Your task to perform on an android device: Open Google Maps and go to "Timeline" Image 0: 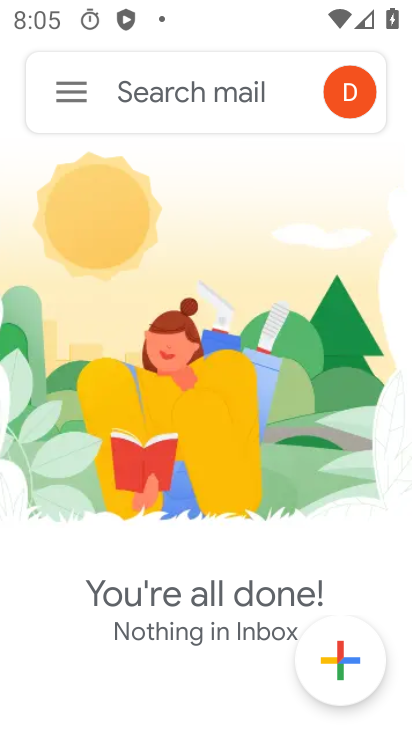
Step 0: press home button
Your task to perform on an android device: Open Google Maps and go to "Timeline" Image 1: 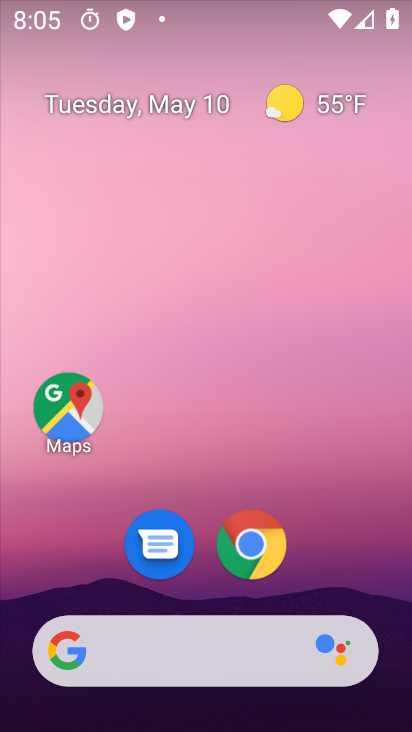
Step 1: click (50, 404)
Your task to perform on an android device: Open Google Maps and go to "Timeline" Image 2: 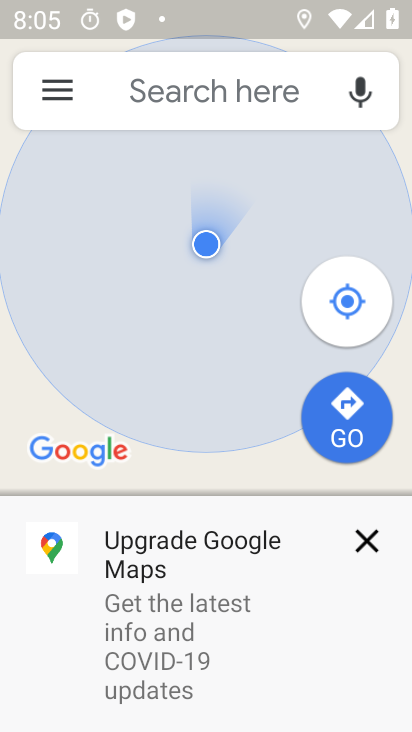
Step 2: click (54, 92)
Your task to perform on an android device: Open Google Maps and go to "Timeline" Image 3: 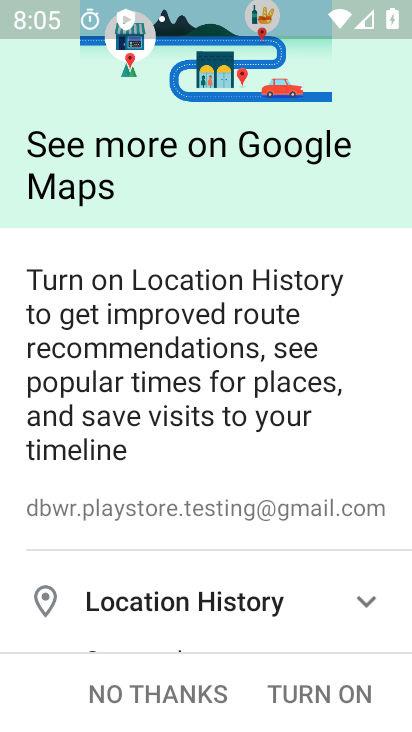
Step 3: click (332, 694)
Your task to perform on an android device: Open Google Maps and go to "Timeline" Image 4: 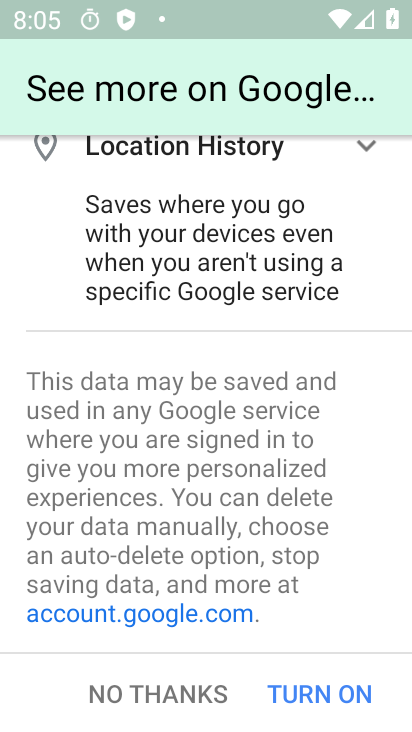
Step 4: click (310, 704)
Your task to perform on an android device: Open Google Maps and go to "Timeline" Image 5: 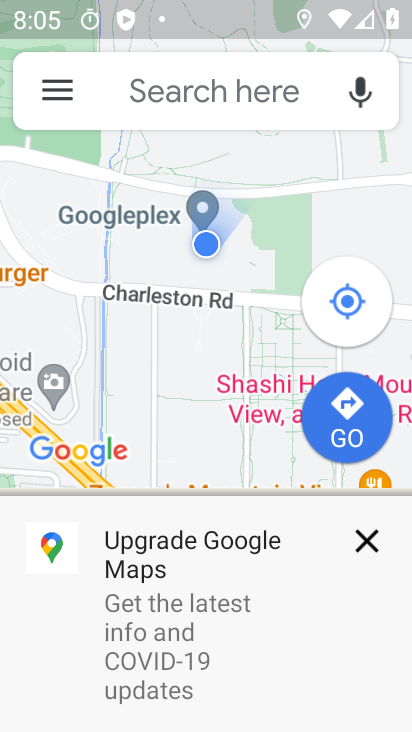
Step 5: click (41, 87)
Your task to perform on an android device: Open Google Maps and go to "Timeline" Image 6: 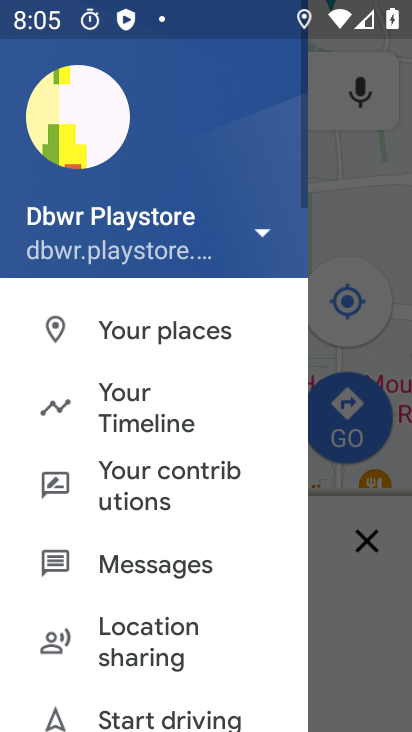
Step 6: click (120, 420)
Your task to perform on an android device: Open Google Maps and go to "Timeline" Image 7: 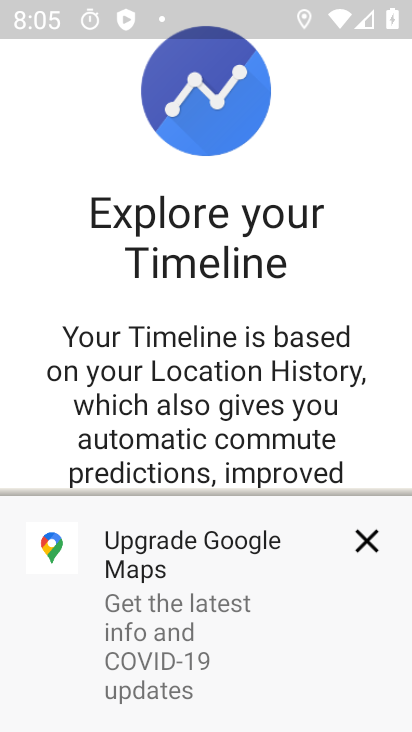
Step 7: click (365, 538)
Your task to perform on an android device: Open Google Maps and go to "Timeline" Image 8: 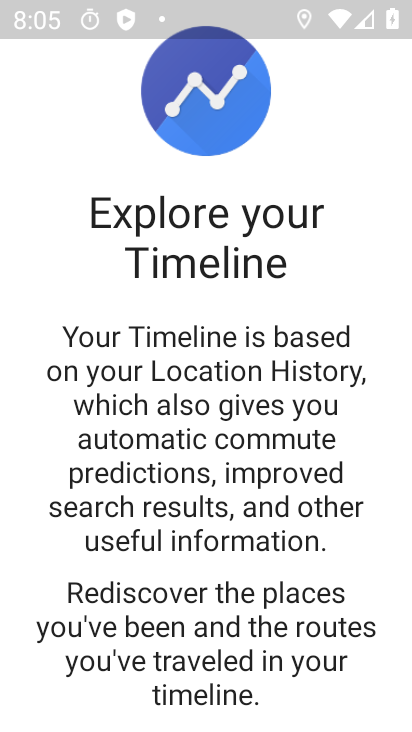
Step 8: drag from (286, 707) to (193, 373)
Your task to perform on an android device: Open Google Maps and go to "Timeline" Image 9: 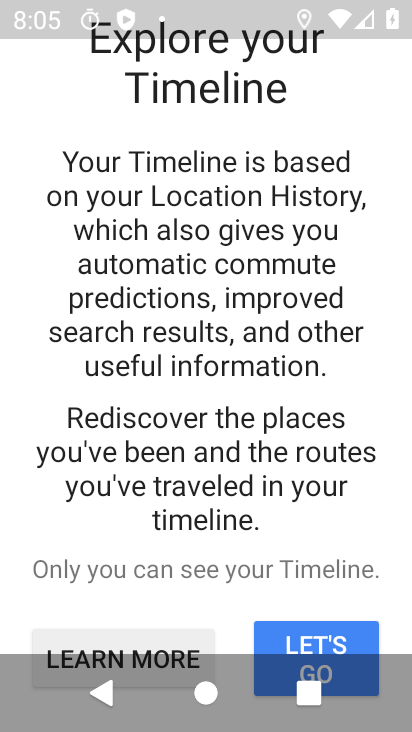
Step 9: click (316, 636)
Your task to perform on an android device: Open Google Maps and go to "Timeline" Image 10: 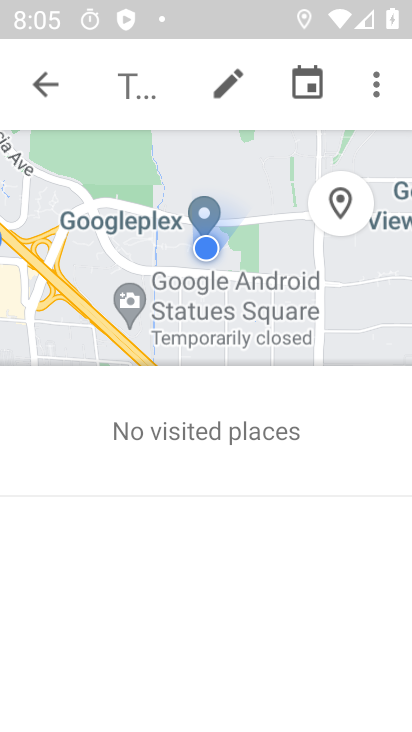
Step 10: task complete